Your task to perform on an android device: Open Wikipedia Image 0: 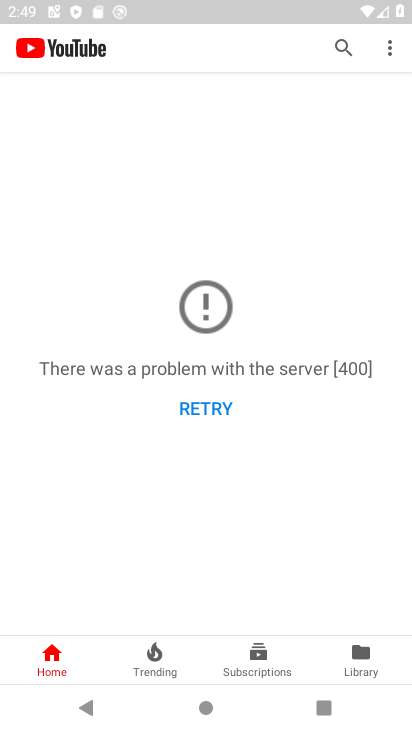
Step 0: press home button
Your task to perform on an android device: Open Wikipedia Image 1: 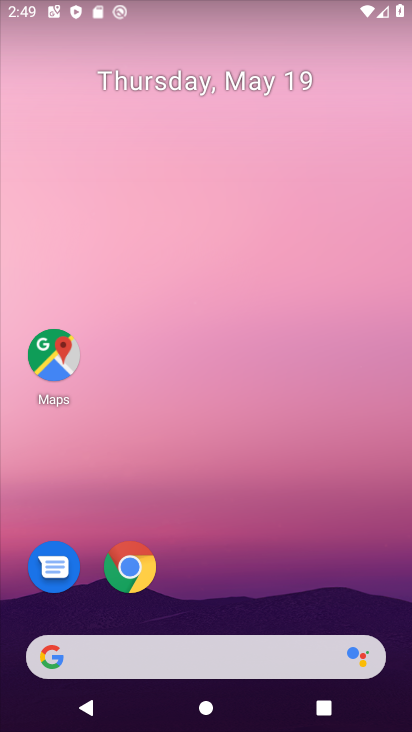
Step 1: click (122, 561)
Your task to perform on an android device: Open Wikipedia Image 2: 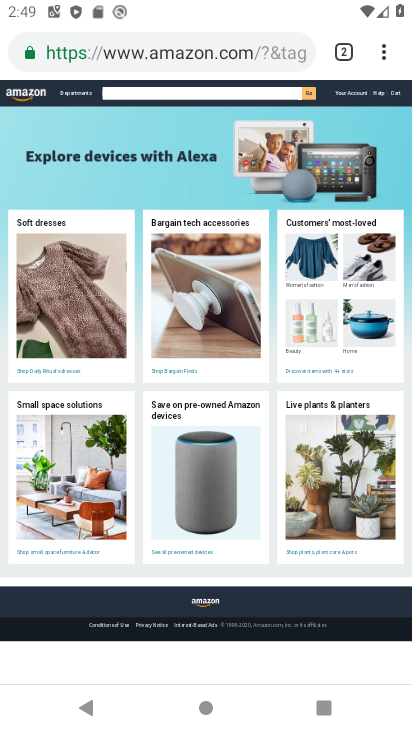
Step 2: click (383, 59)
Your task to perform on an android device: Open Wikipedia Image 3: 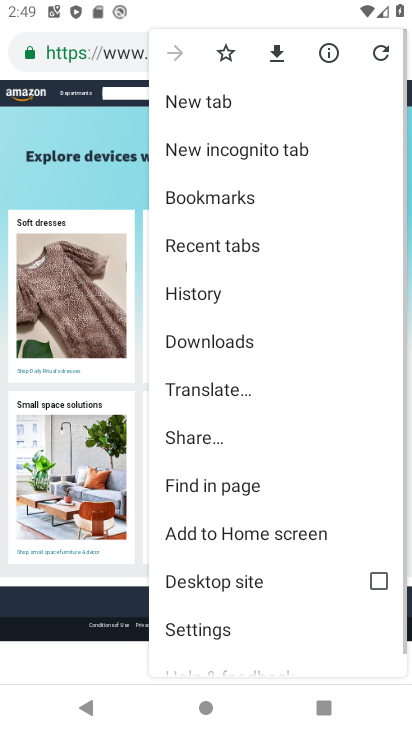
Step 3: click (209, 97)
Your task to perform on an android device: Open Wikipedia Image 4: 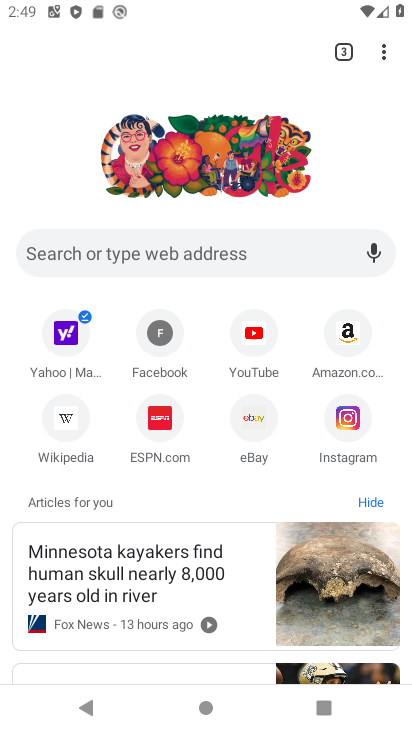
Step 4: click (207, 247)
Your task to perform on an android device: Open Wikipedia Image 5: 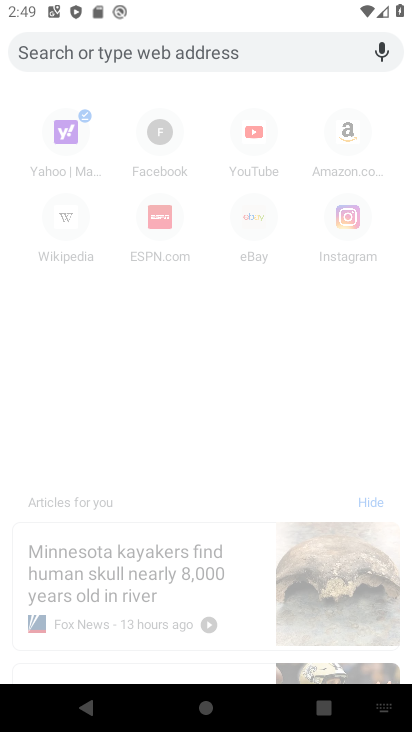
Step 5: type "Wikipedia"
Your task to perform on an android device: Open Wikipedia Image 6: 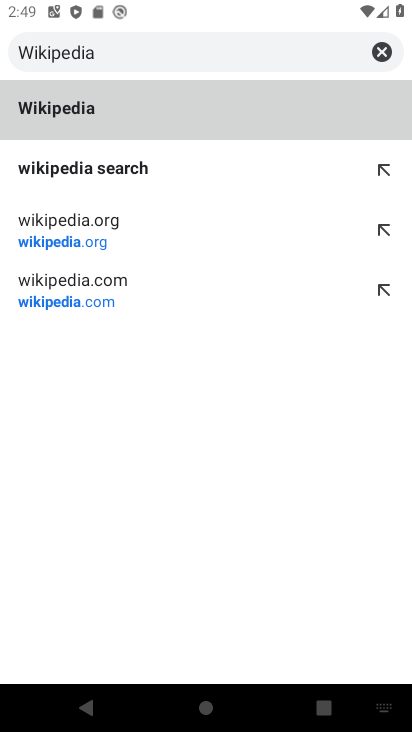
Step 6: click (119, 101)
Your task to perform on an android device: Open Wikipedia Image 7: 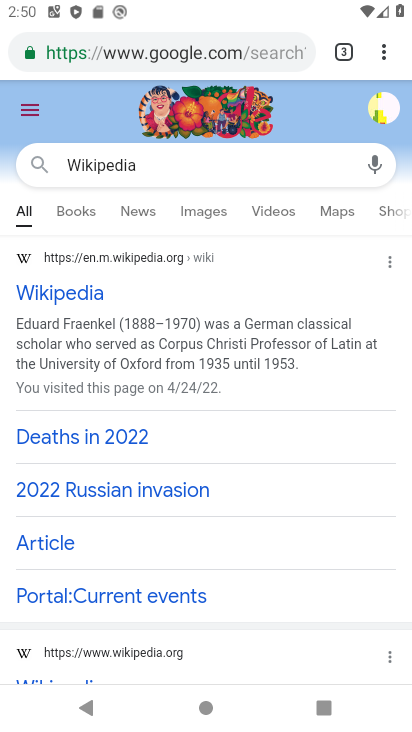
Step 7: click (61, 290)
Your task to perform on an android device: Open Wikipedia Image 8: 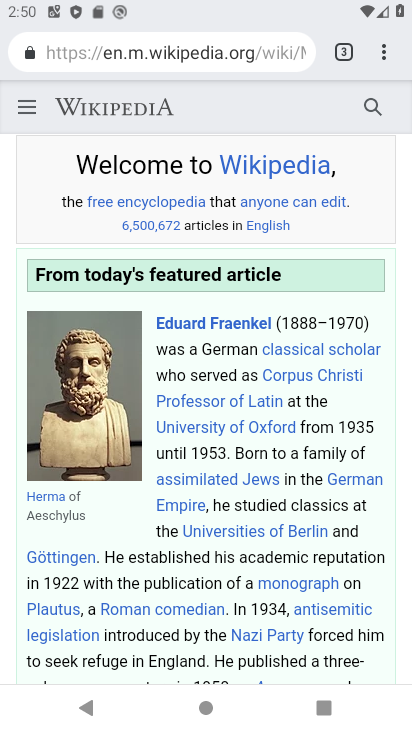
Step 8: task complete